Your task to perform on an android device: delete a single message in the gmail app Image 0: 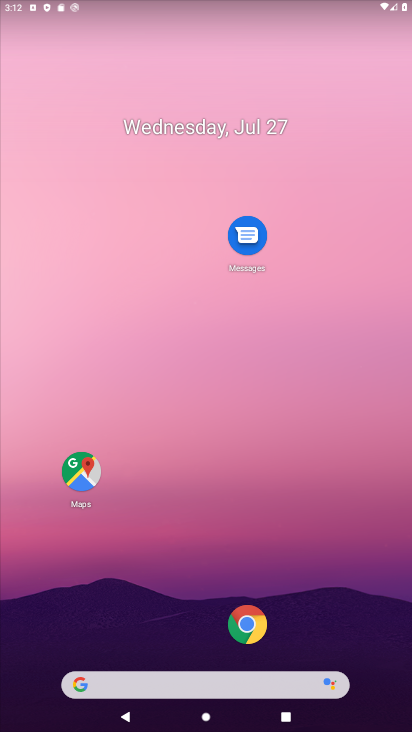
Step 0: drag from (120, 666) to (194, 190)
Your task to perform on an android device: delete a single message in the gmail app Image 1: 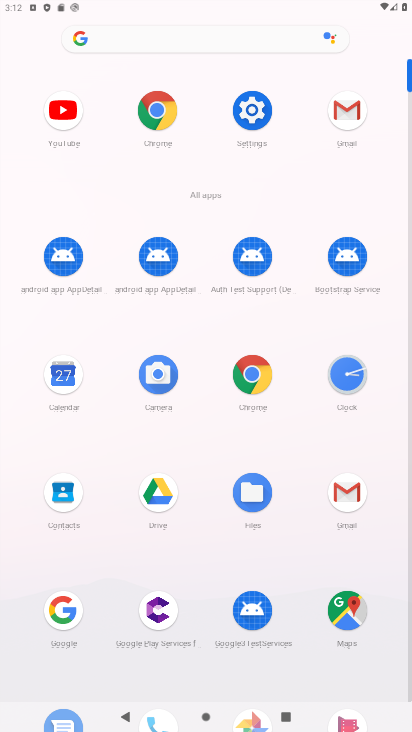
Step 1: click (333, 122)
Your task to perform on an android device: delete a single message in the gmail app Image 2: 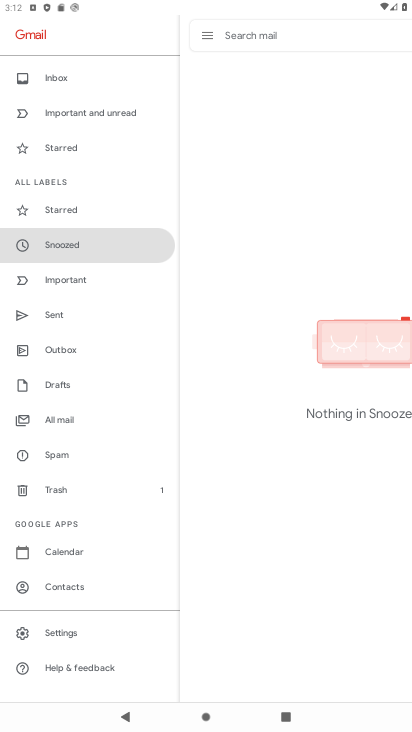
Step 2: click (55, 83)
Your task to perform on an android device: delete a single message in the gmail app Image 3: 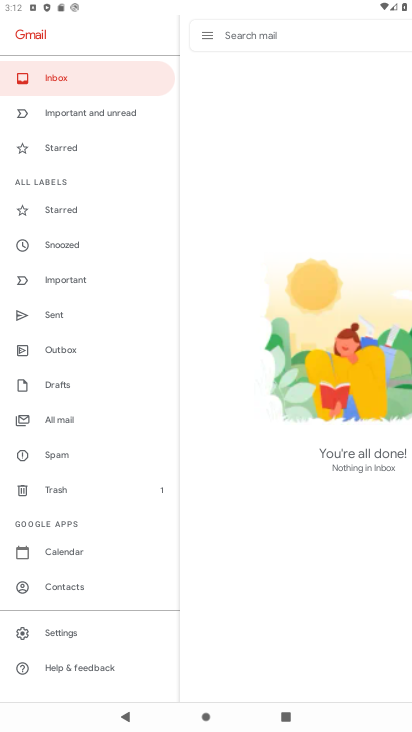
Step 3: task complete